Your task to perform on an android device: show emergency info Image 0: 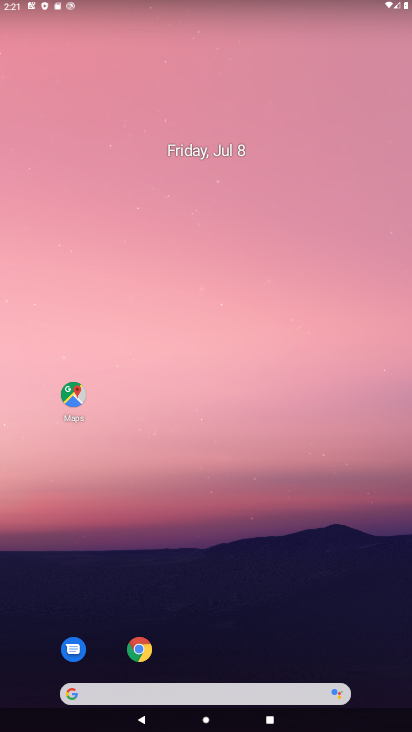
Step 0: drag from (355, 648) to (351, 134)
Your task to perform on an android device: show emergency info Image 1: 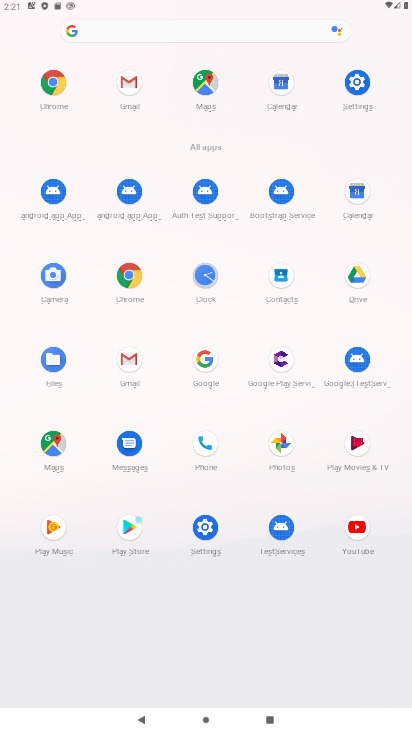
Step 1: click (204, 530)
Your task to perform on an android device: show emergency info Image 2: 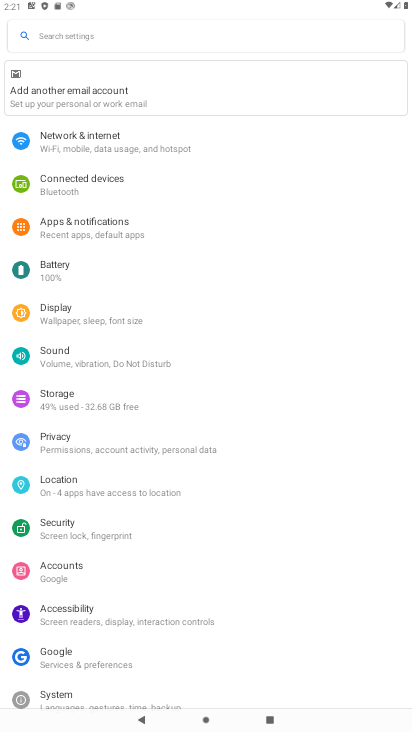
Step 2: drag from (327, 659) to (298, 268)
Your task to perform on an android device: show emergency info Image 3: 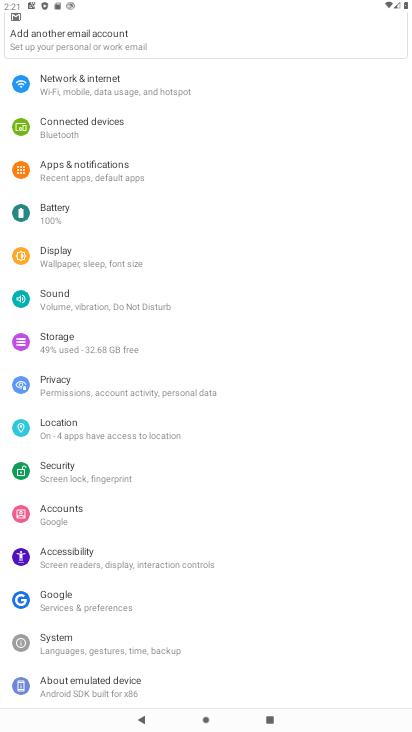
Step 3: click (75, 683)
Your task to perform on an android device: show emergency info Image 4: 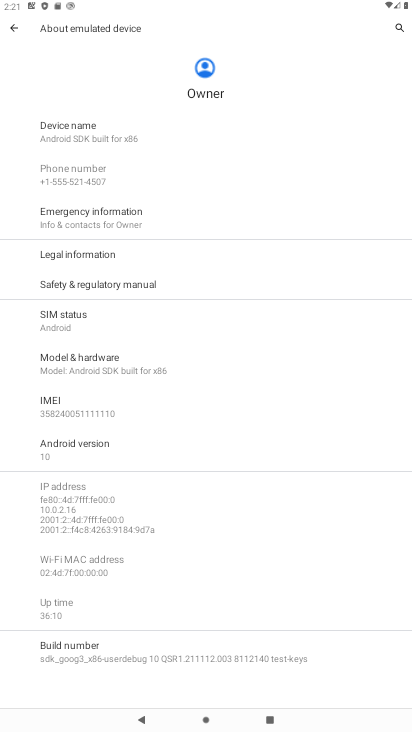
Step 4: click (96, 214)
Your task to perform on an android device: show emergency info Image 5: 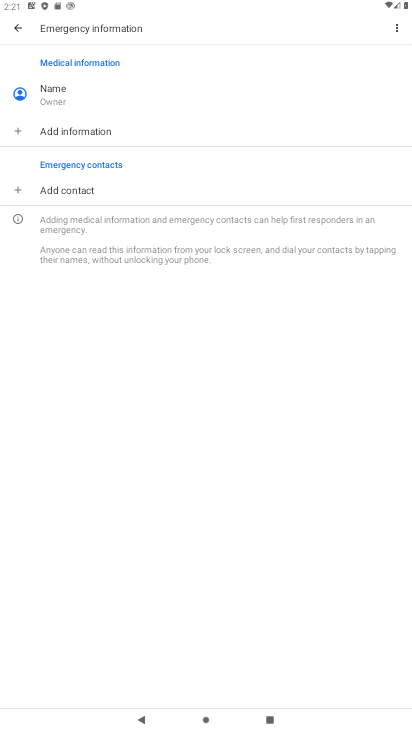
Step 5: task complete